Your task to perform on an android device: open app "Google Chrome" (install if not already installed) Image 0: 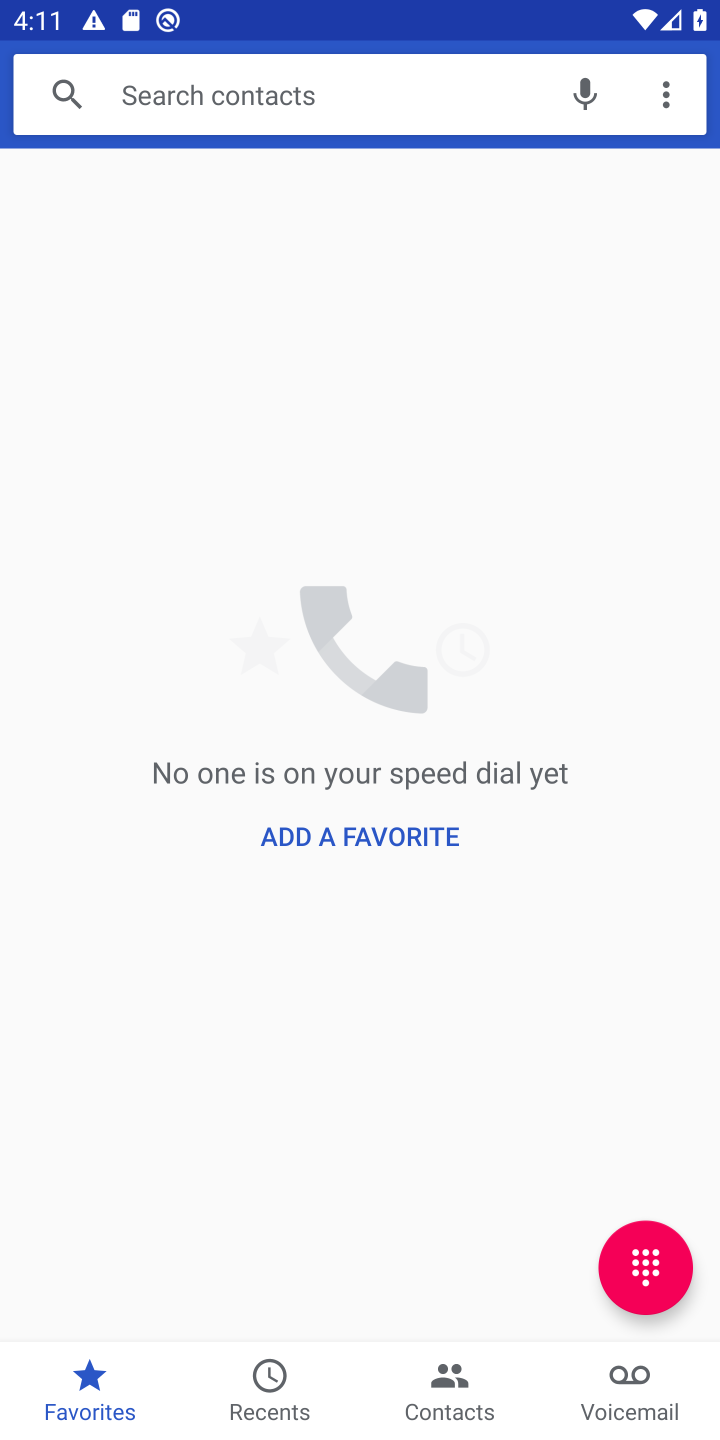
Step 0: press home button
Your task to perform on an android device: open app "Google Chrome" (install if not already installed) Image 1: 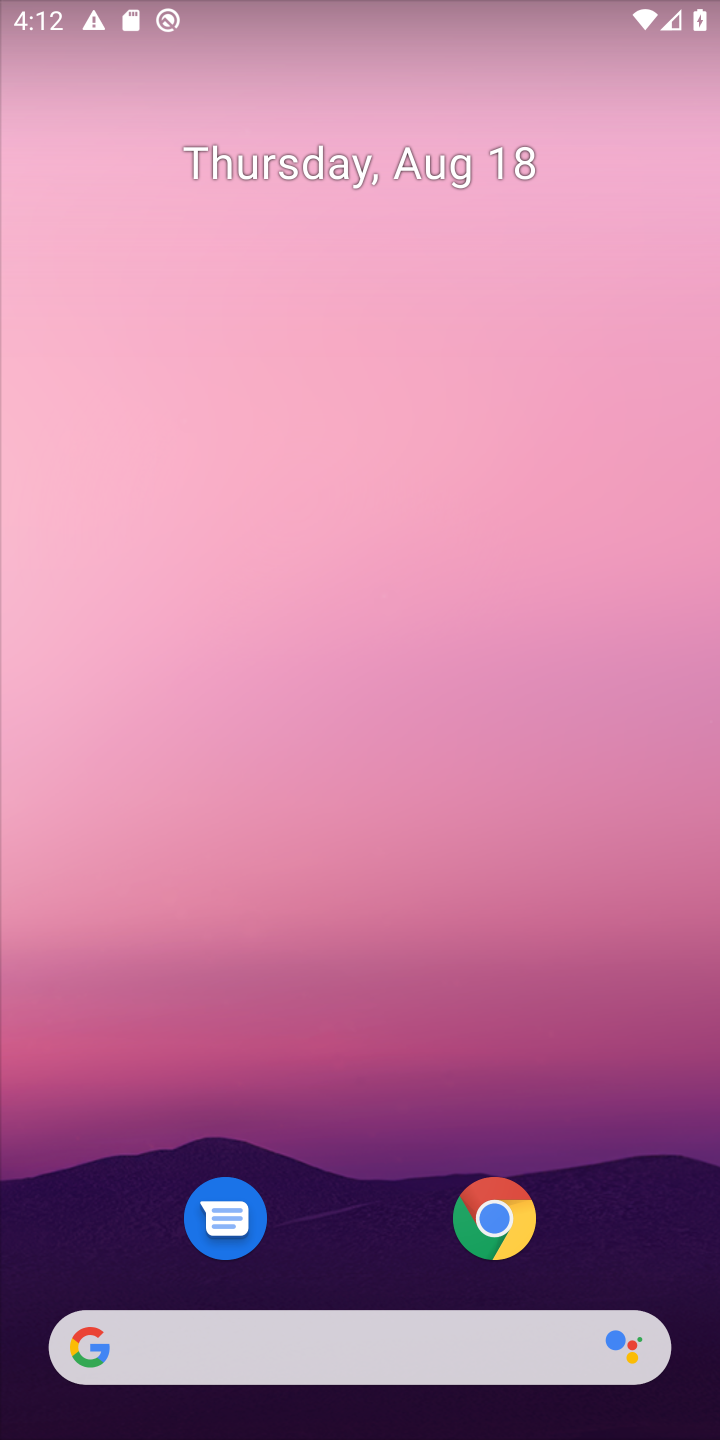
Step 1: drag from (367, 1142) to (409, 488)
Your task to perform on an android device: open app "Google Chrome" (install if not already installed) Image 2: 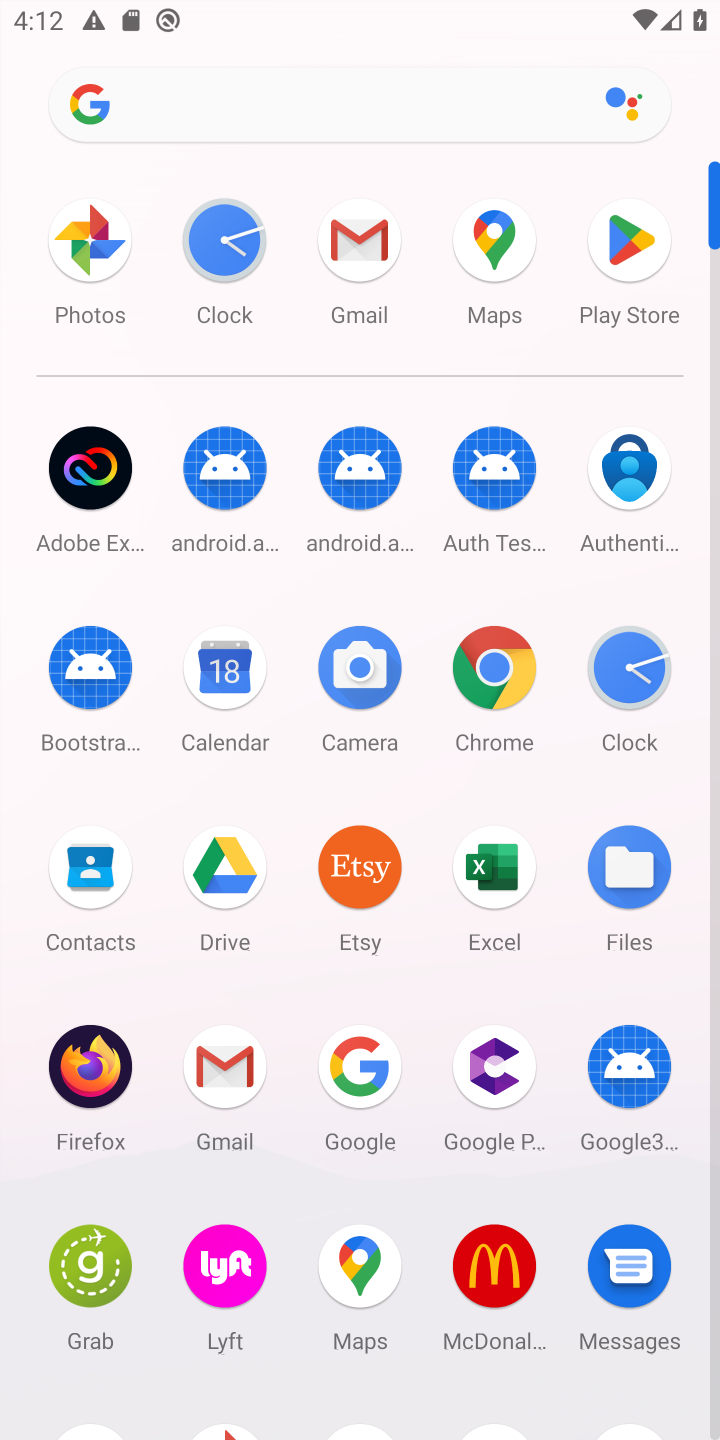
Step 2: click (637, 243)
Your task to perform on an android device: open app "Google Chrome" (install if not already installed) Image 3: 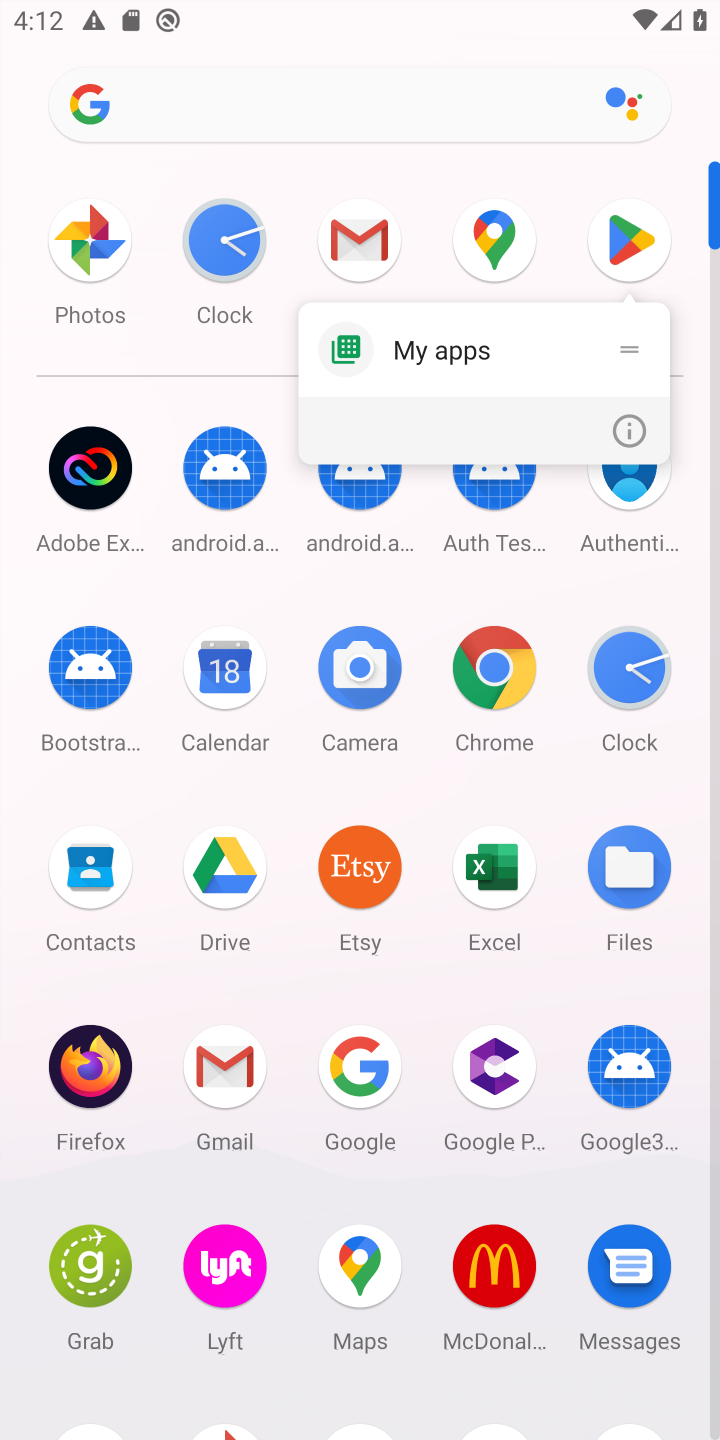
Step 3: click (616, 234)
Your task to perform on an android device: open app "Google Chrome" (install if not already installed) Image 4: 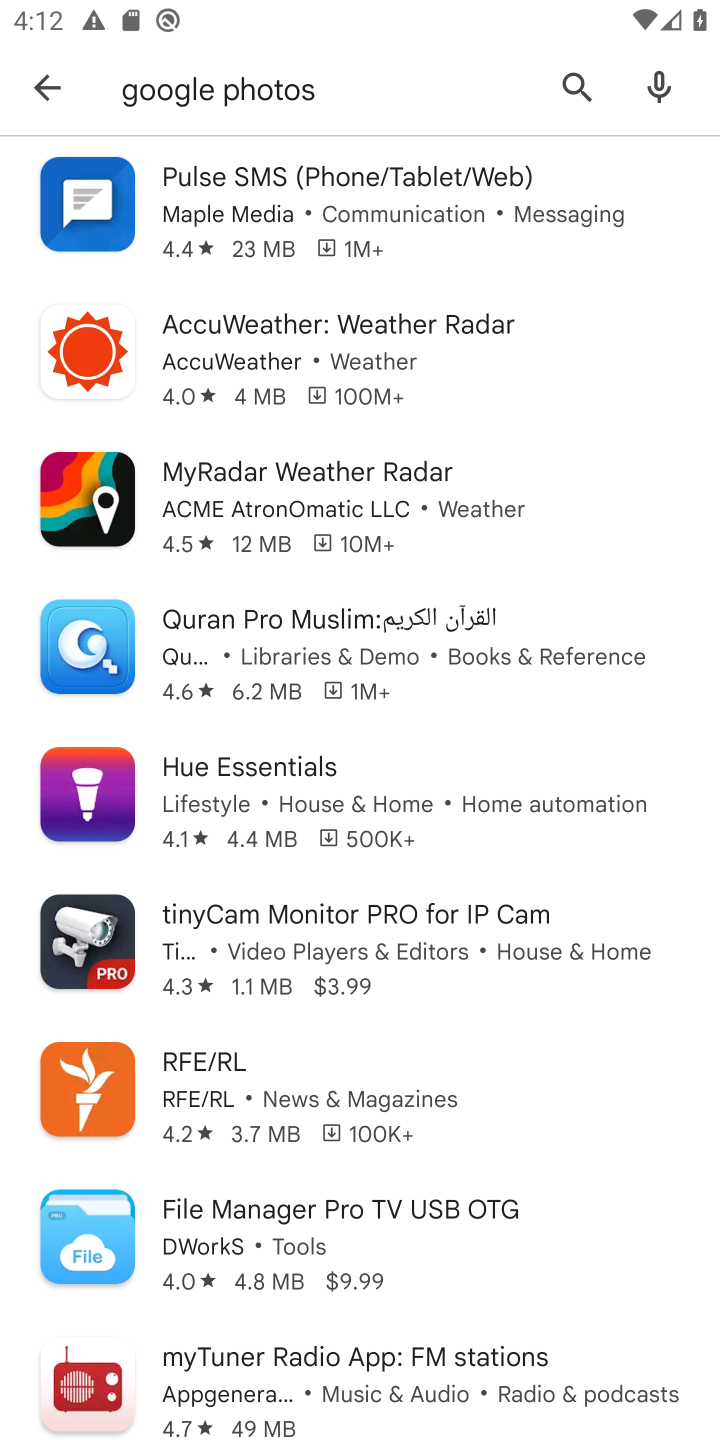
Step 4: click (560, 79)
Your task to perform on an android device: open app "Google Chrome" (install if not already installed) Image 5: 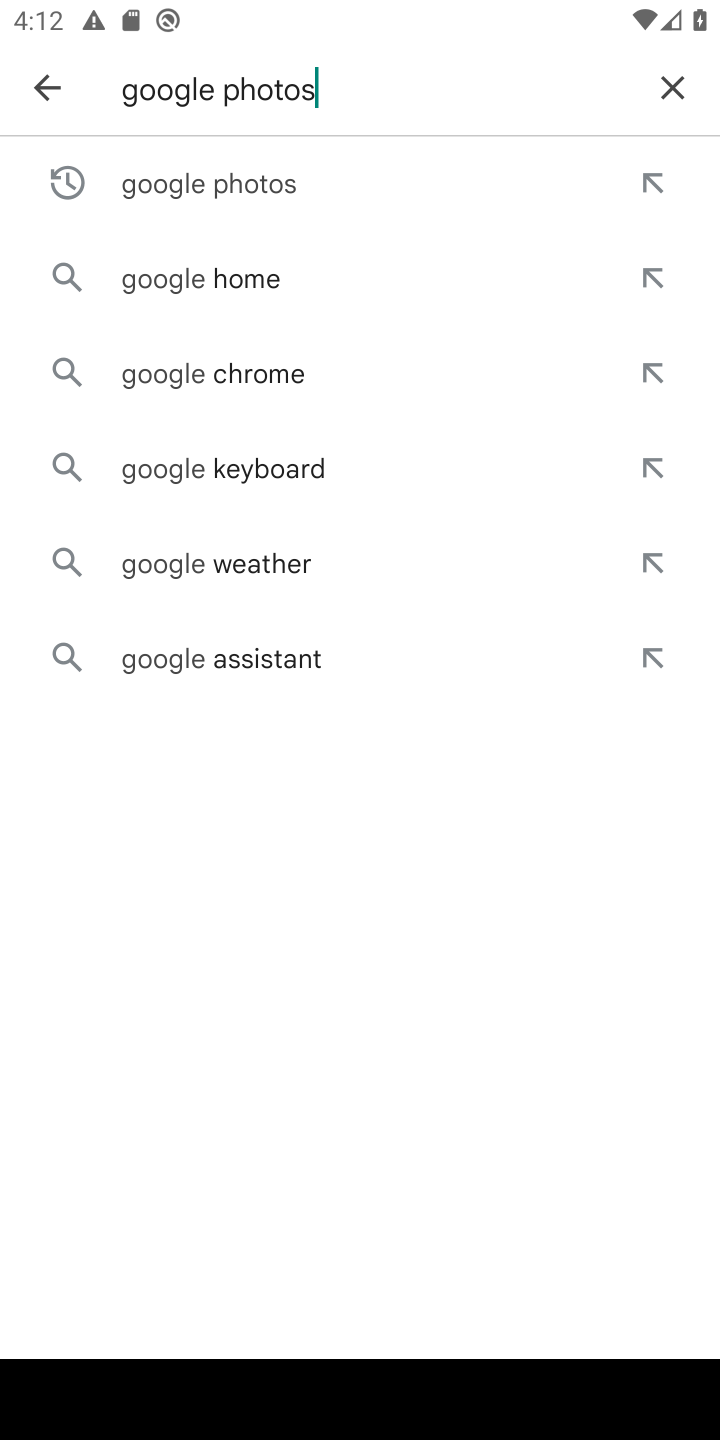
Step 5: click (659, 87)
Your task to perform on an android device: open app "Google Chrome" (install if not already installed) Image 6: 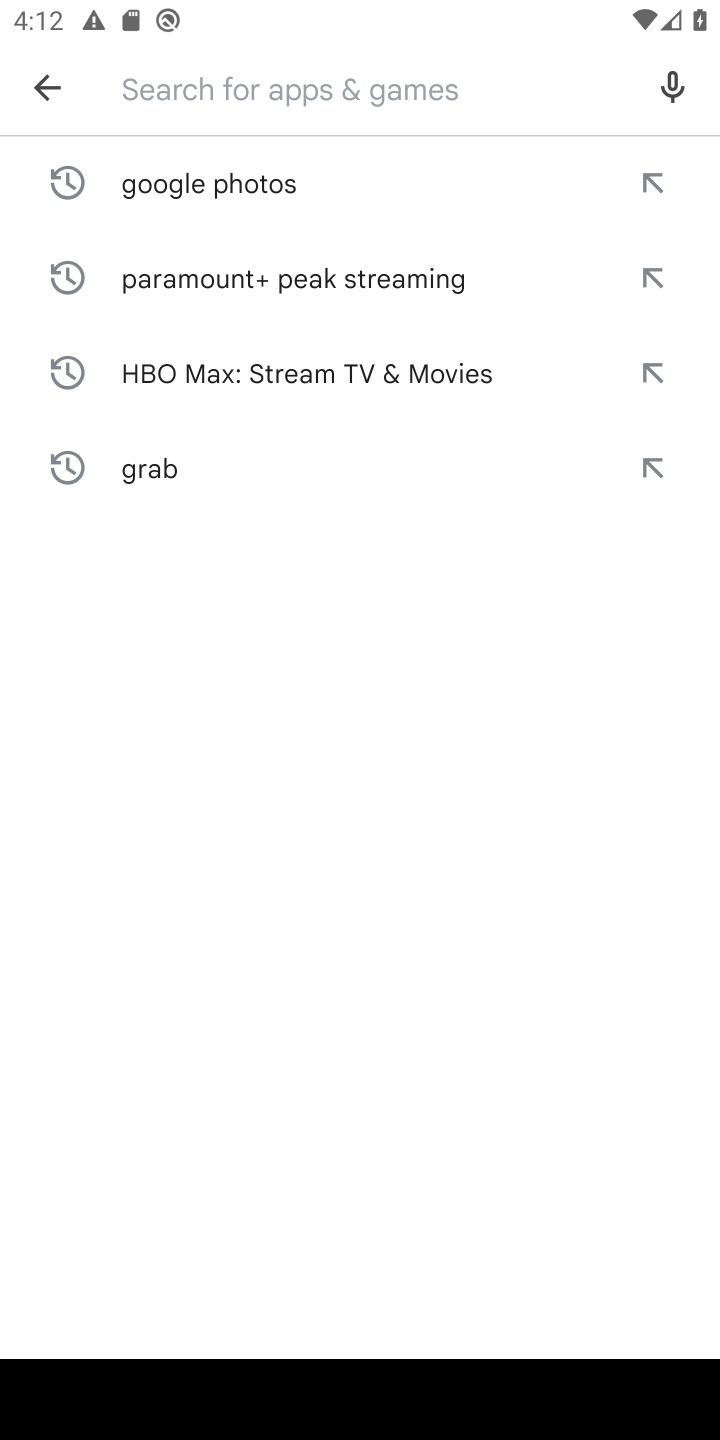
Step 6: type "Google Chrome"
Your task to perform on an android device: open app "Google Chrome" (install if not already installed) Image 7: 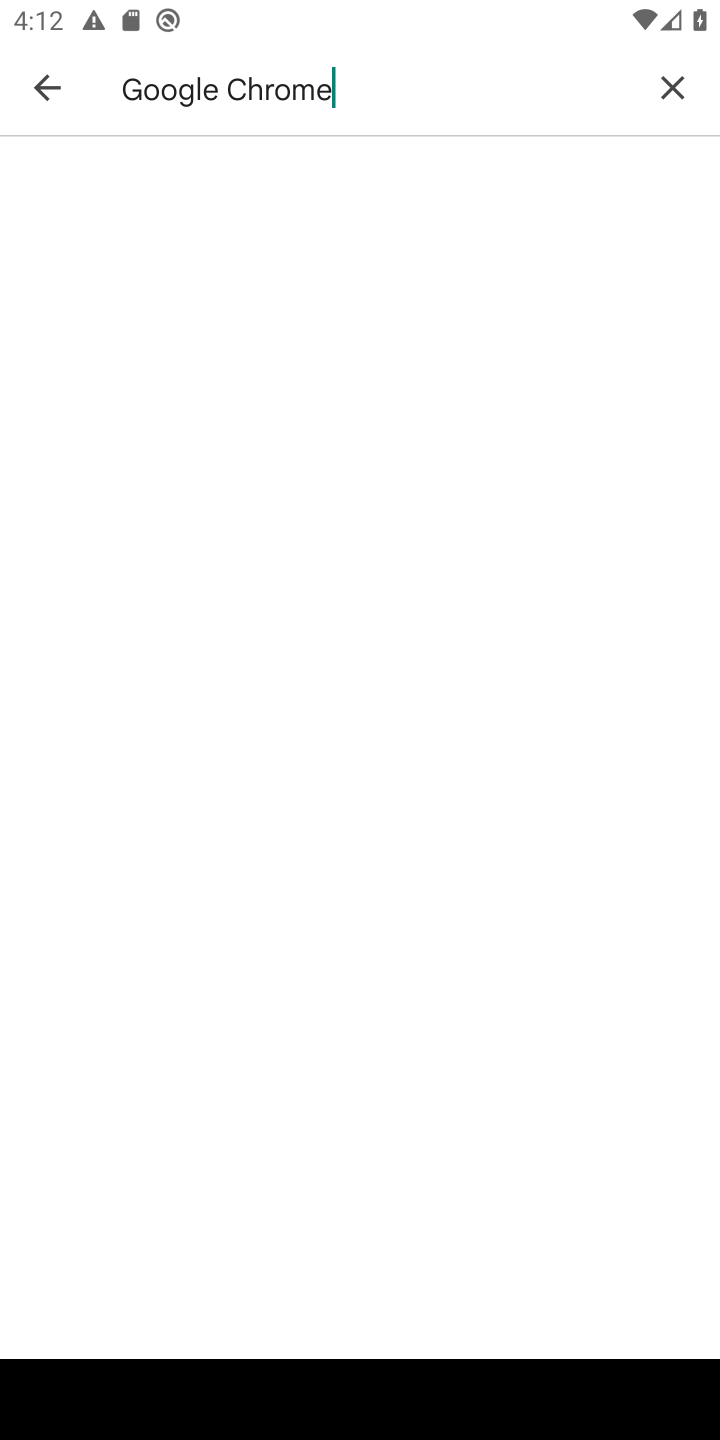
Step 7: type ""
Your task to perform on an android device: open app "Google Chrome" (install if not already installed) Image 8: 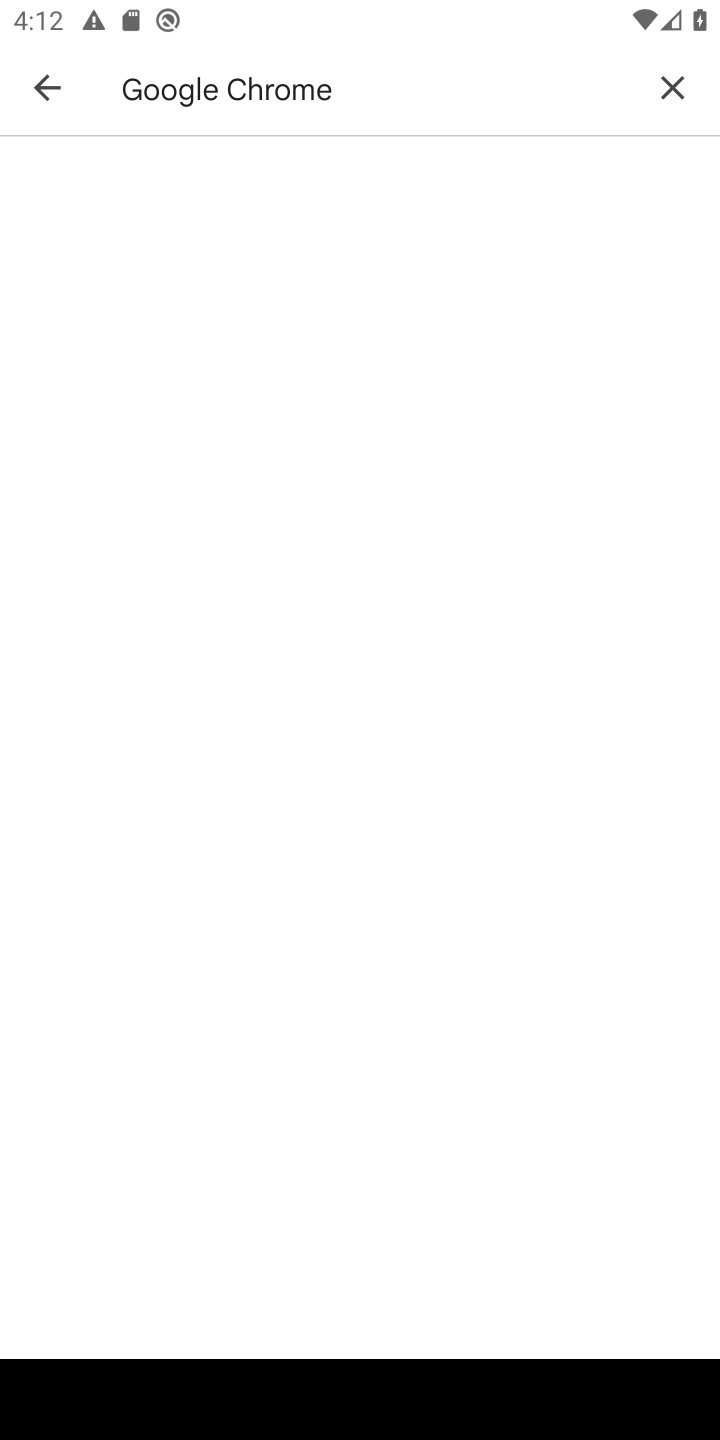
Step 8: task complete